Your task to perform on an android device: install app "YouTube Kids" Image 0: 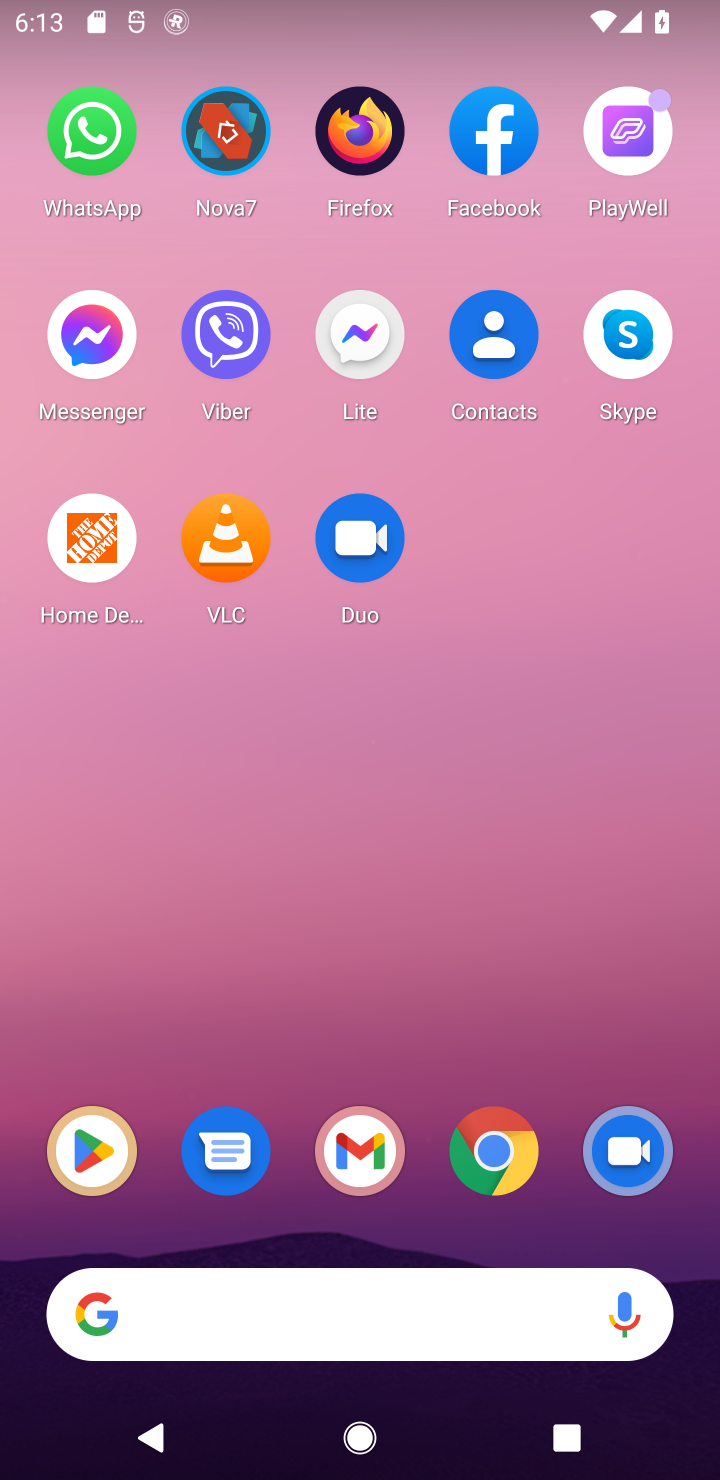
Step 0: click (98, 1151)
Your task to perform on an android device: install app "YouTube Kids" Image 1: 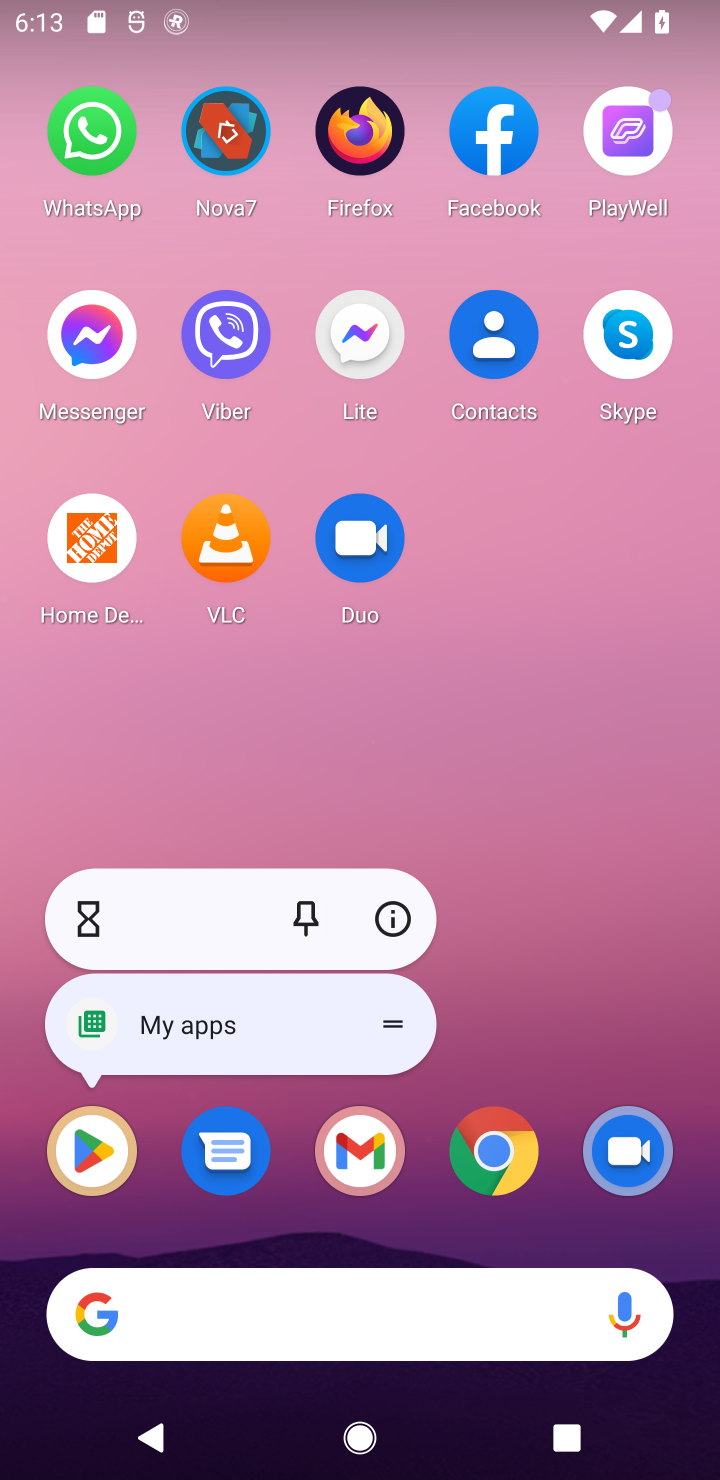
Step 1: click (94, 1166)
Your task to perform on an android device: install app "YouTube Kids" Image 2: 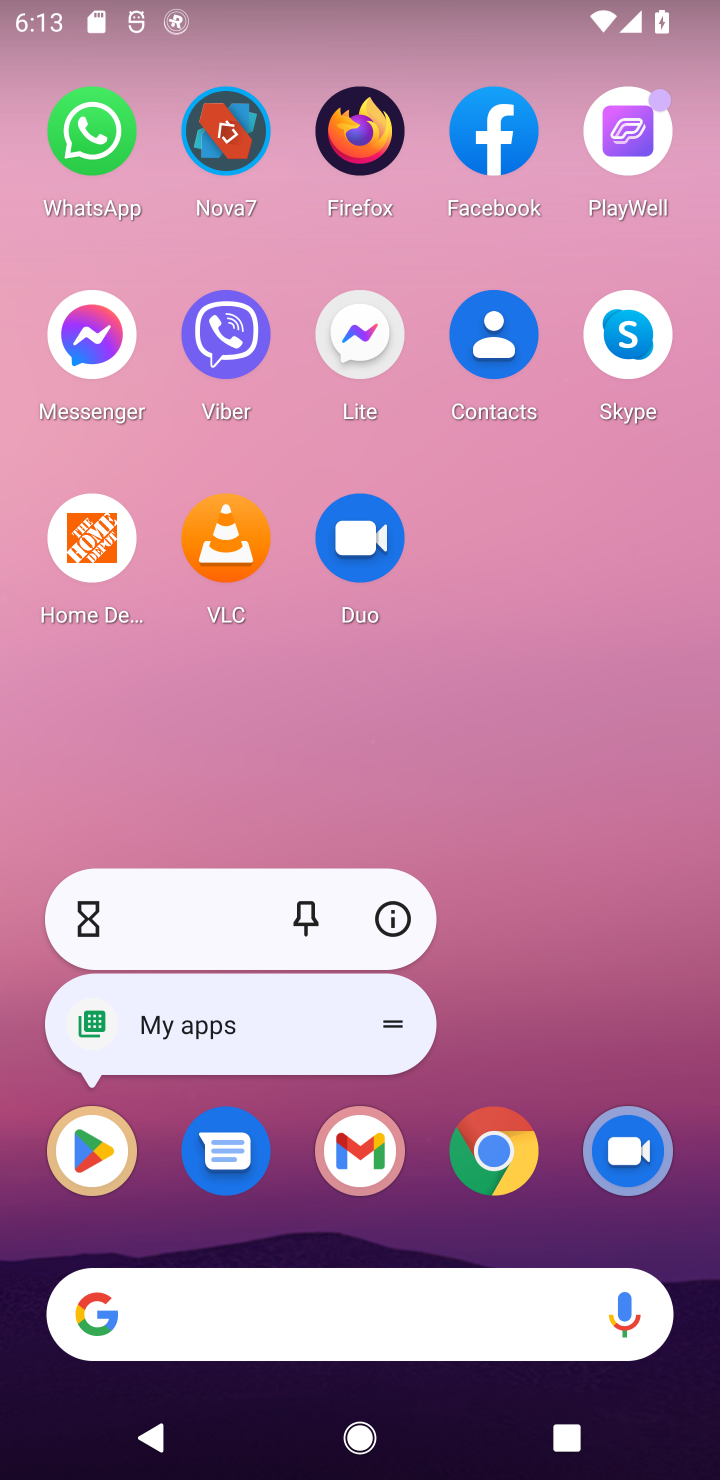
Step 2: click (94, 1151)
Your task to perform on an android device: install app "YouTube Kids" Image 3: 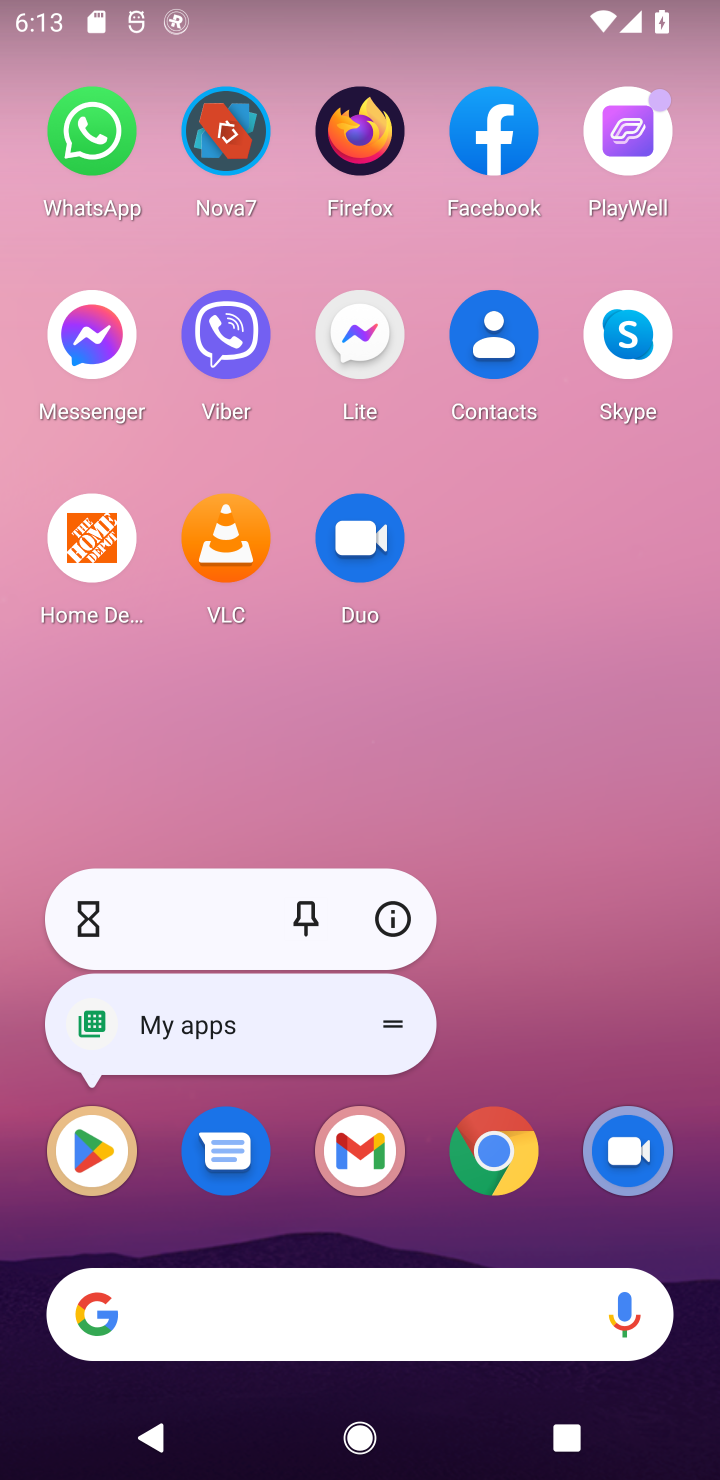
Step 3: click (94, 1163)
Your task to perform on an android device: install app "YouTube Kids" Image 4: 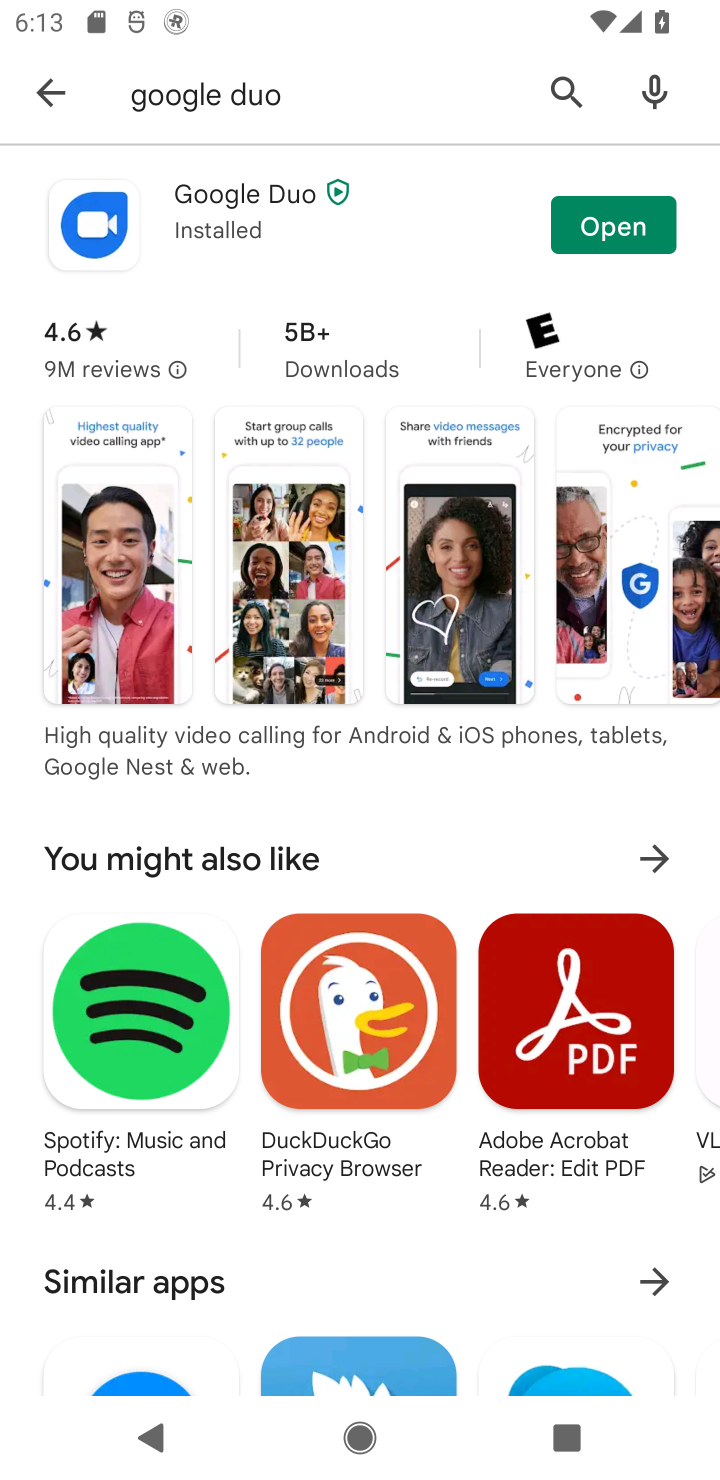
Step 4: click (568, 85)
Your task to perform on an android device: install app "YouTube Kids" Image 5: 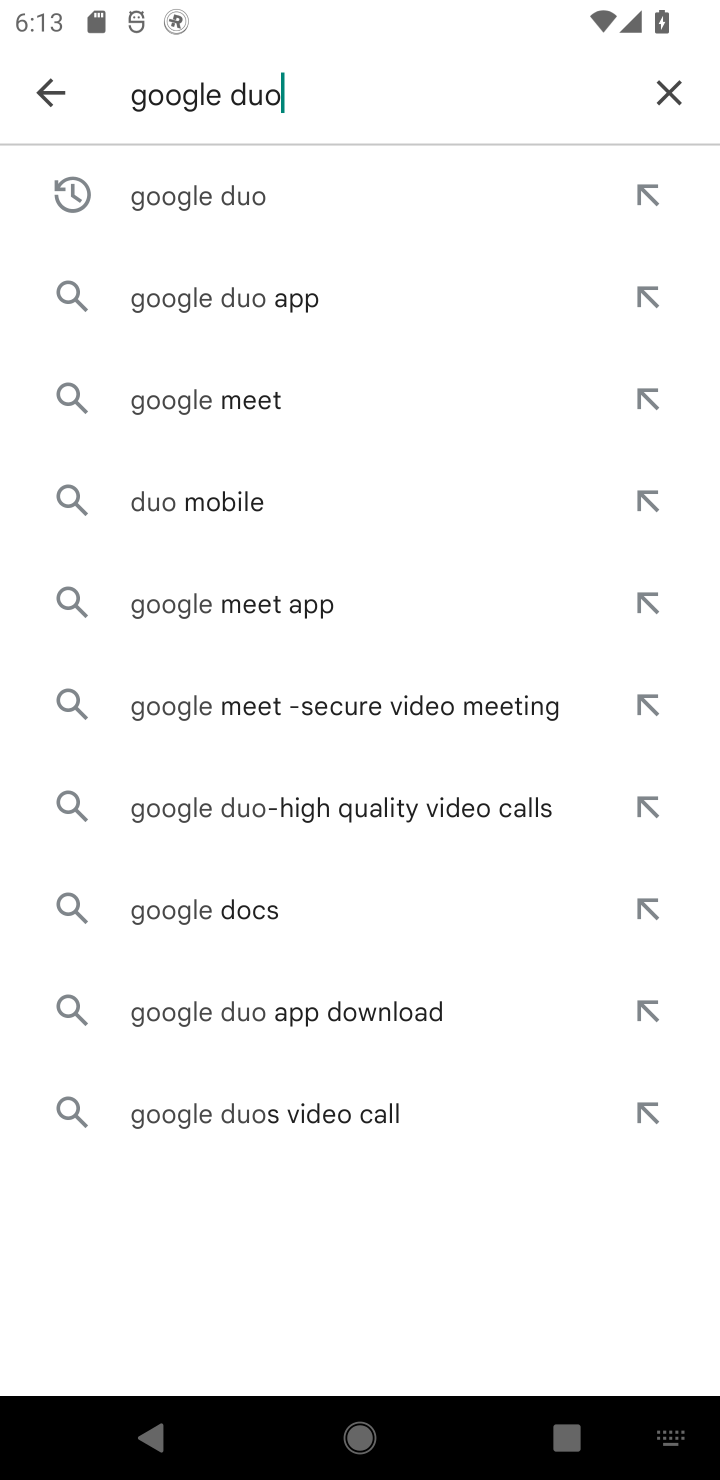
Step 5: click (659, 106)
Your task to perform on an android device: install app "YouTube Kids" Image 6: 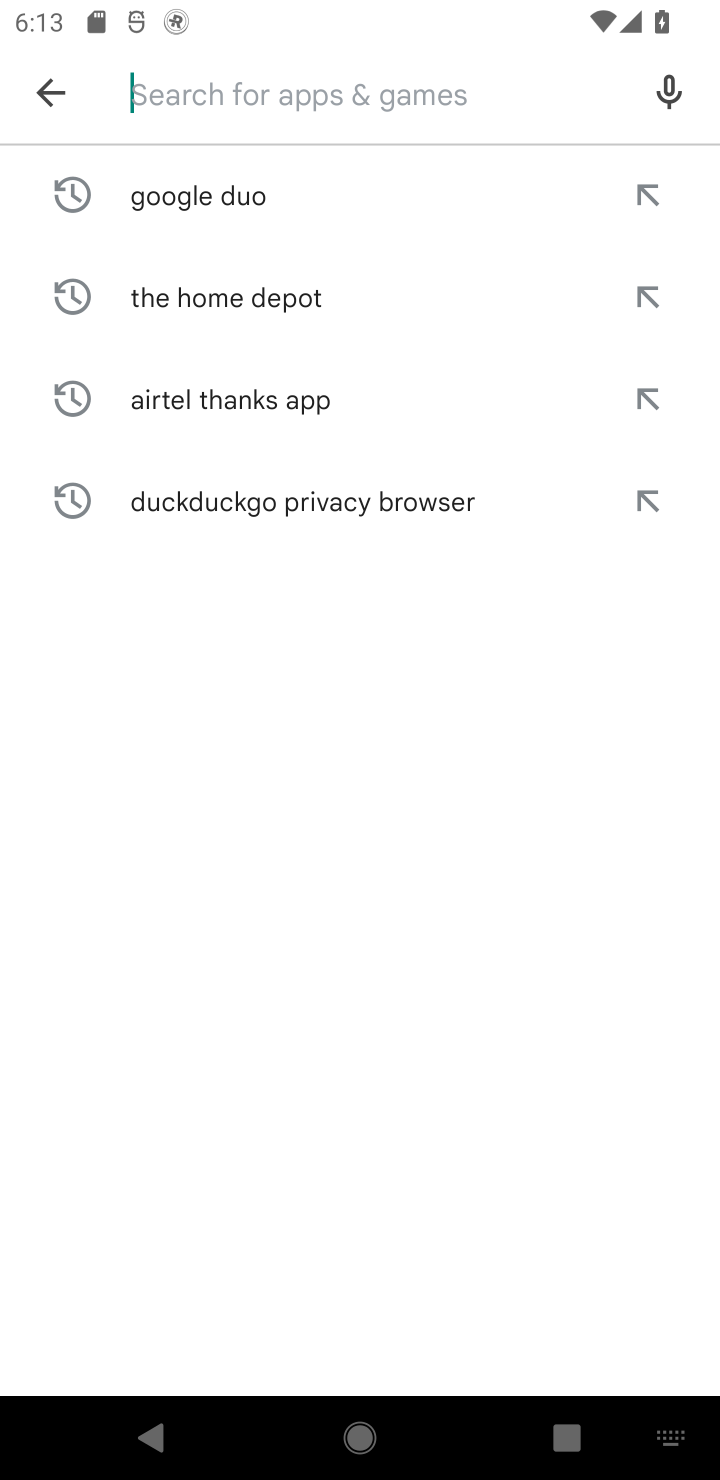
Step 6: type "YouTube Kids"
Your task to perform on an android device: install app "YouTube Kids" Image 7: 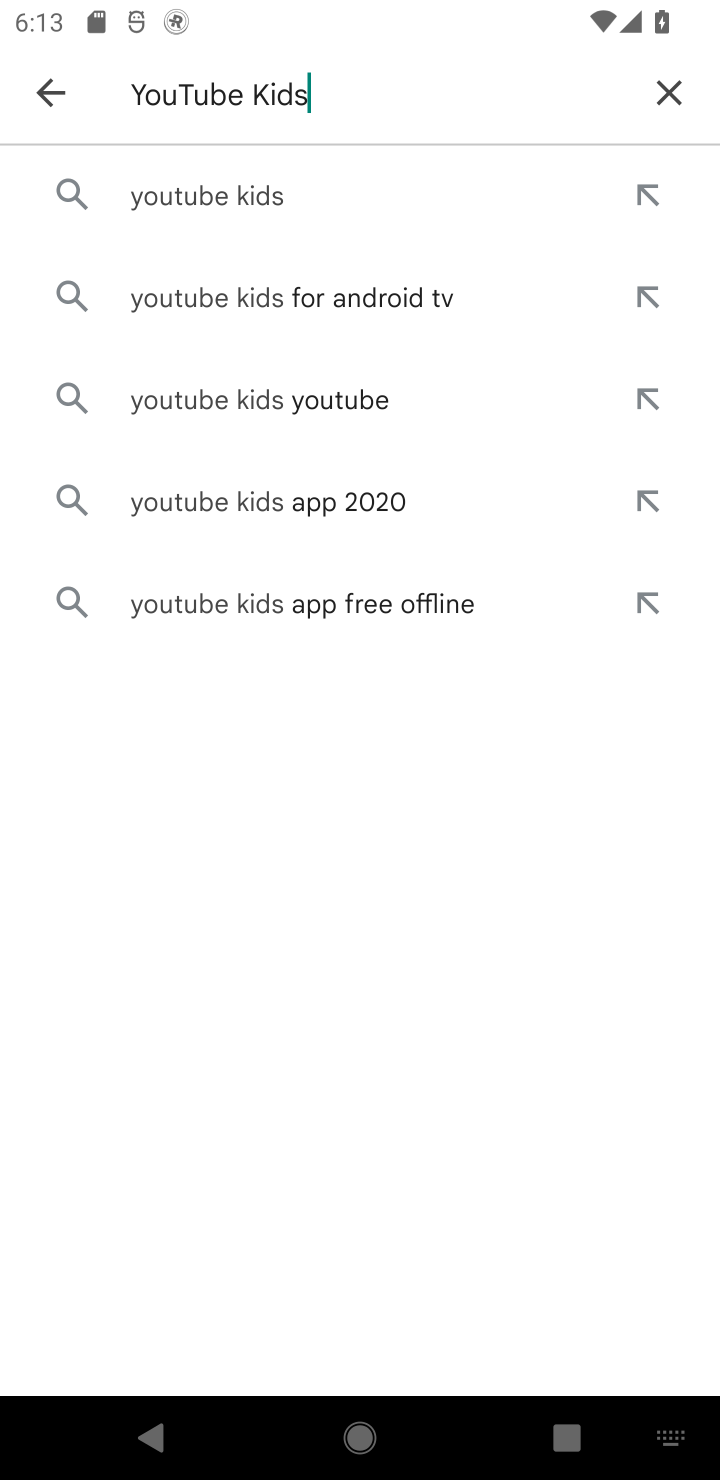
Step 7: click (243, 212)
Your task to perform on an android device: install app "YouTube Kids" Image 8: 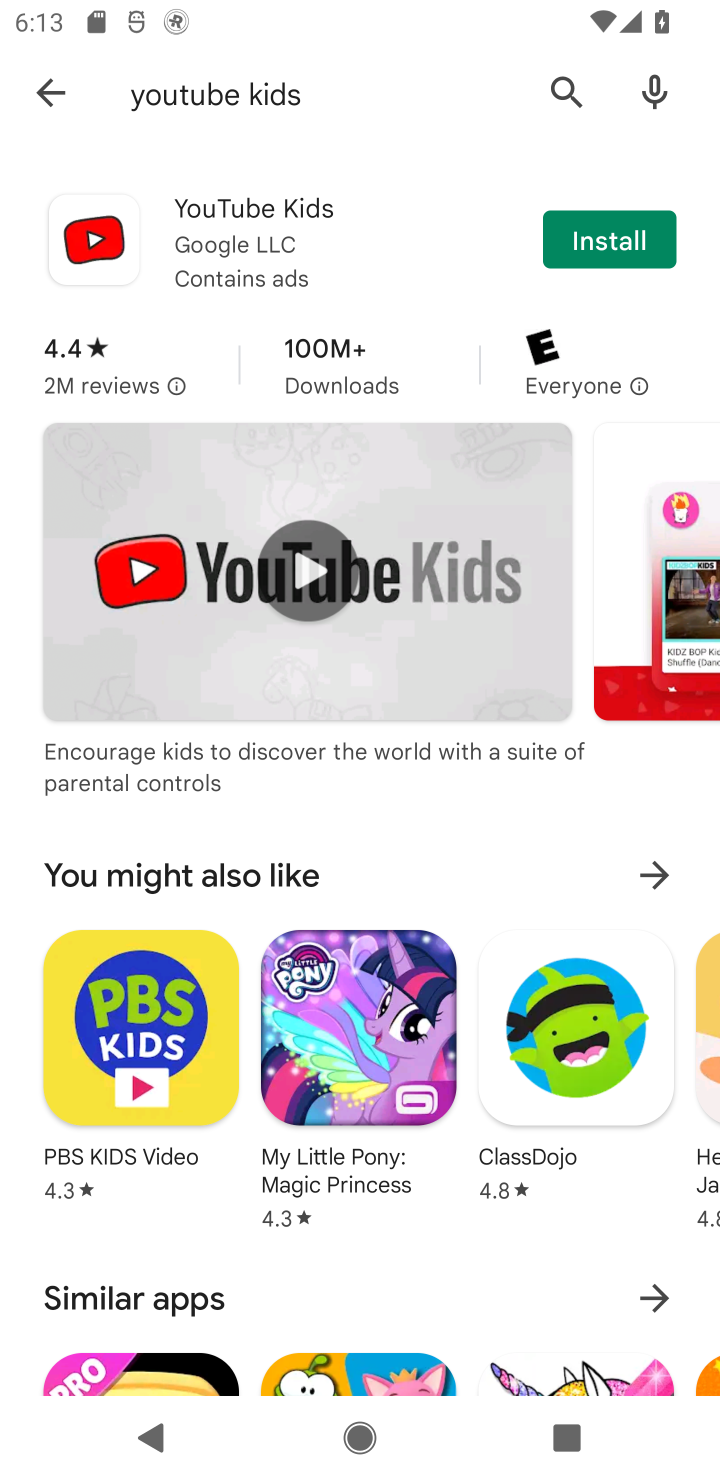
Step 8: click (651, 241)
Your task to perform on an android device: install app "YouTube Kids" Image 9: 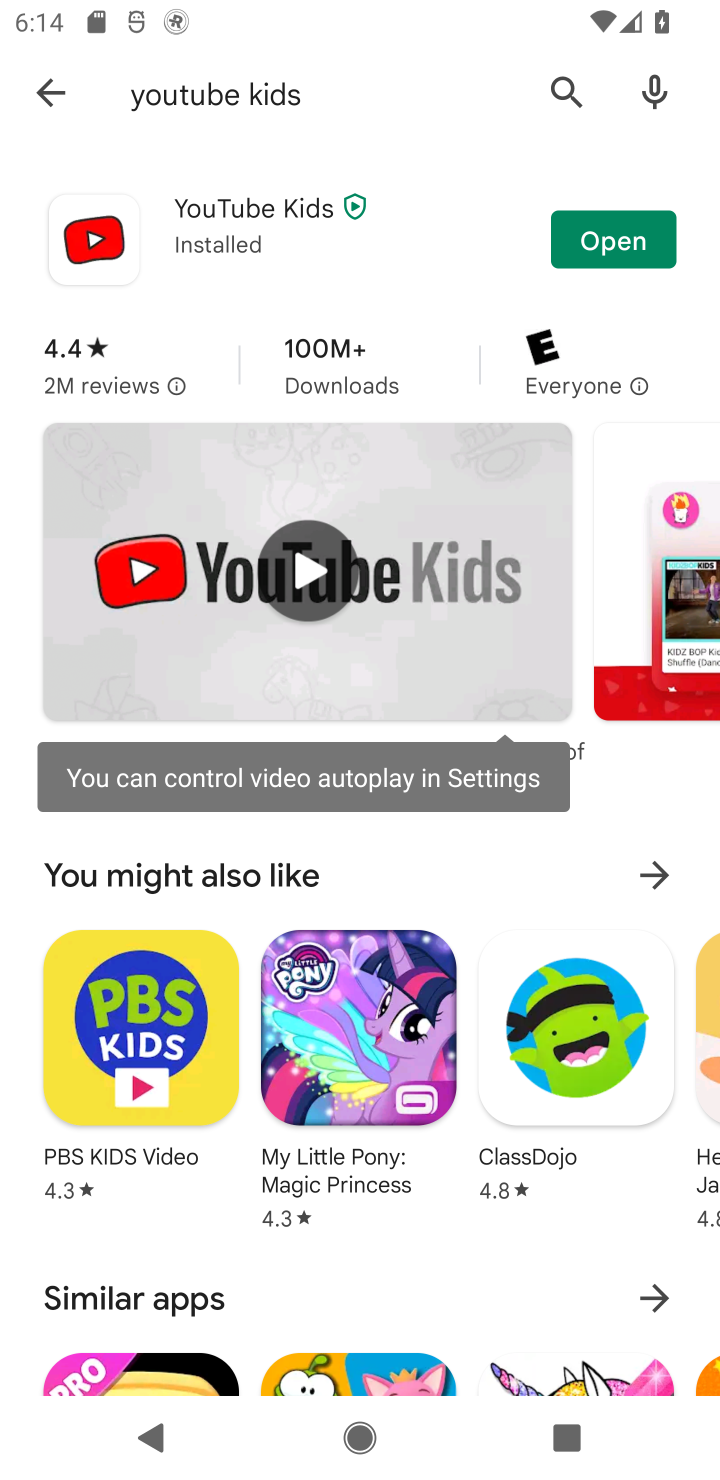
Step 9: task complete